Your task to perform on an android device: Open Google Chrome Image 0: 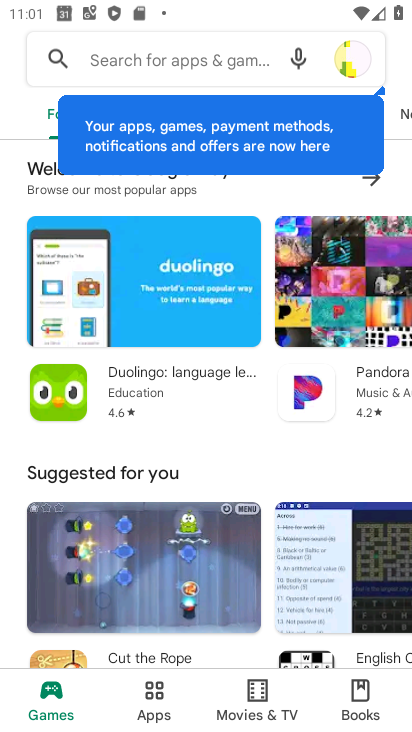
Step 0: press home button
Your task to perform on an android device: Open Google Chrome Image 1: 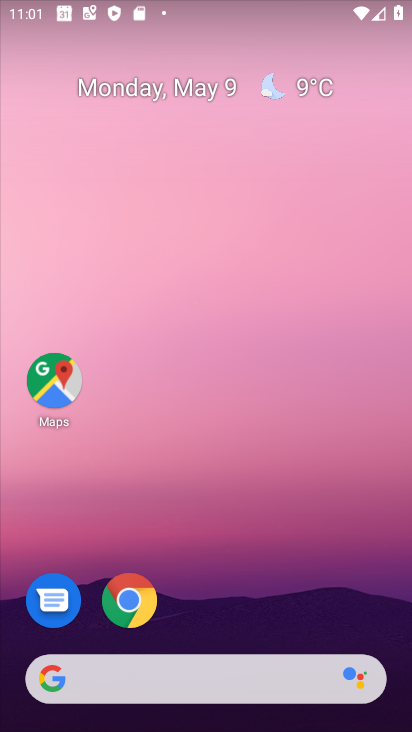
Step 1: drag from (356, 594) to (367, 151)
Your task to perform on an android device: Open Google Chrome Image 2: 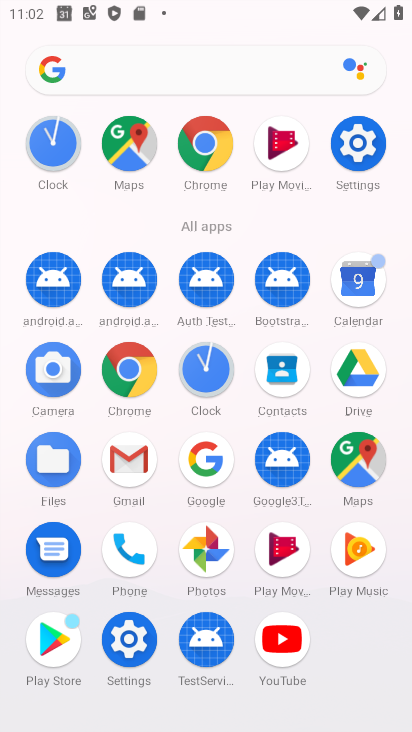
Step 2: click (145, 379)
Your task to perform on an android device: Open Google Chrome Image 3: 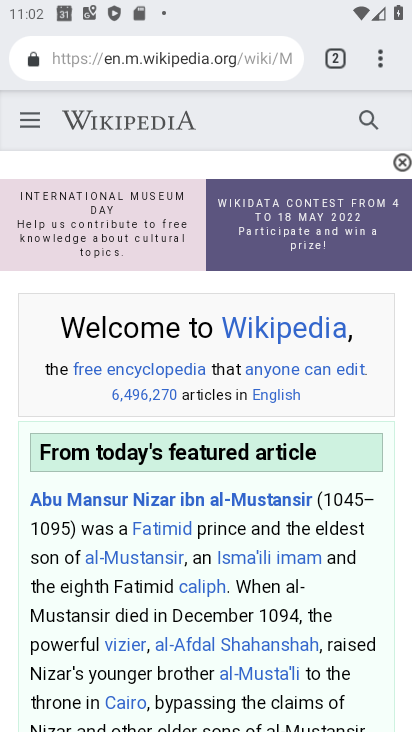
Step 3: task complete